Your task to perform on an android device: install app "Google Sheets" Image 0: 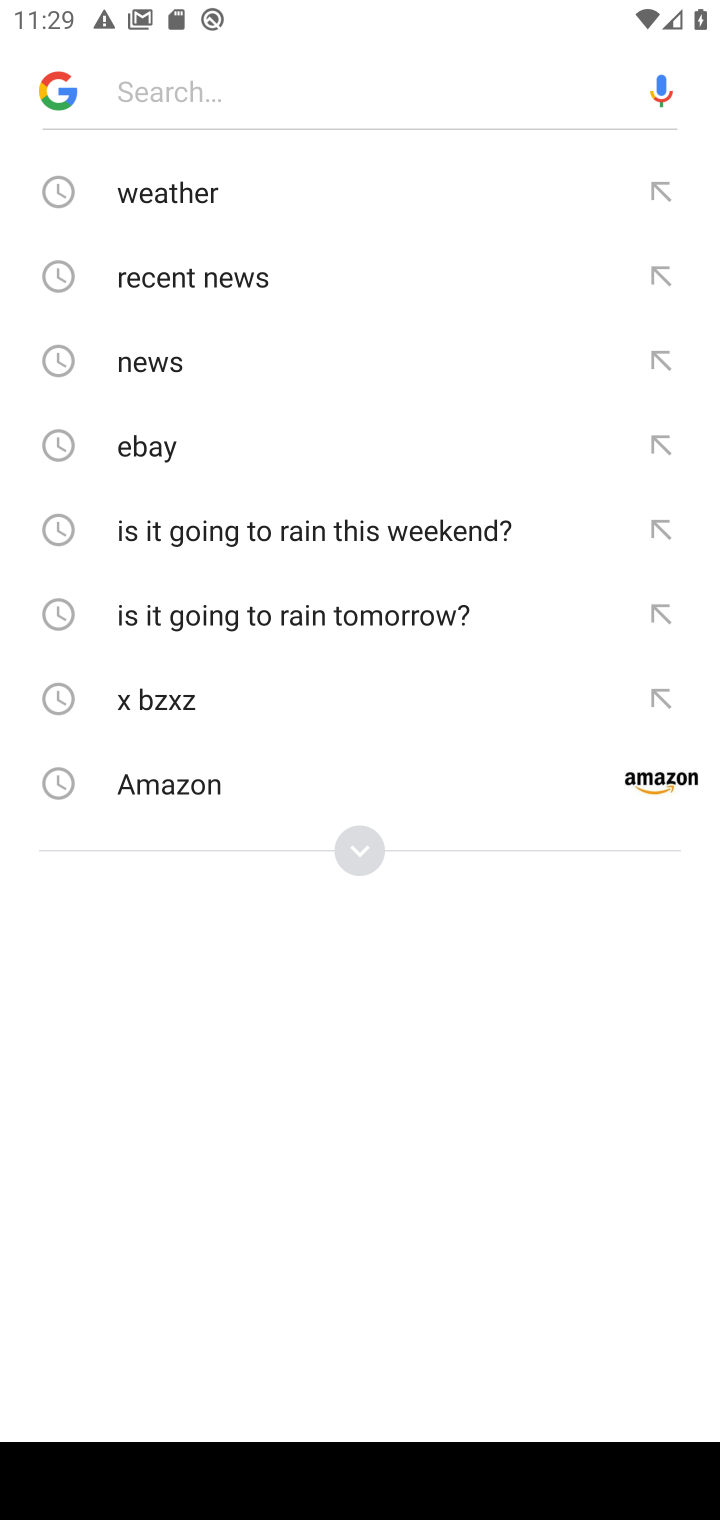
Step 0: press back button
Your task to perform on an android device: install app "Google Sheets" Image 1: 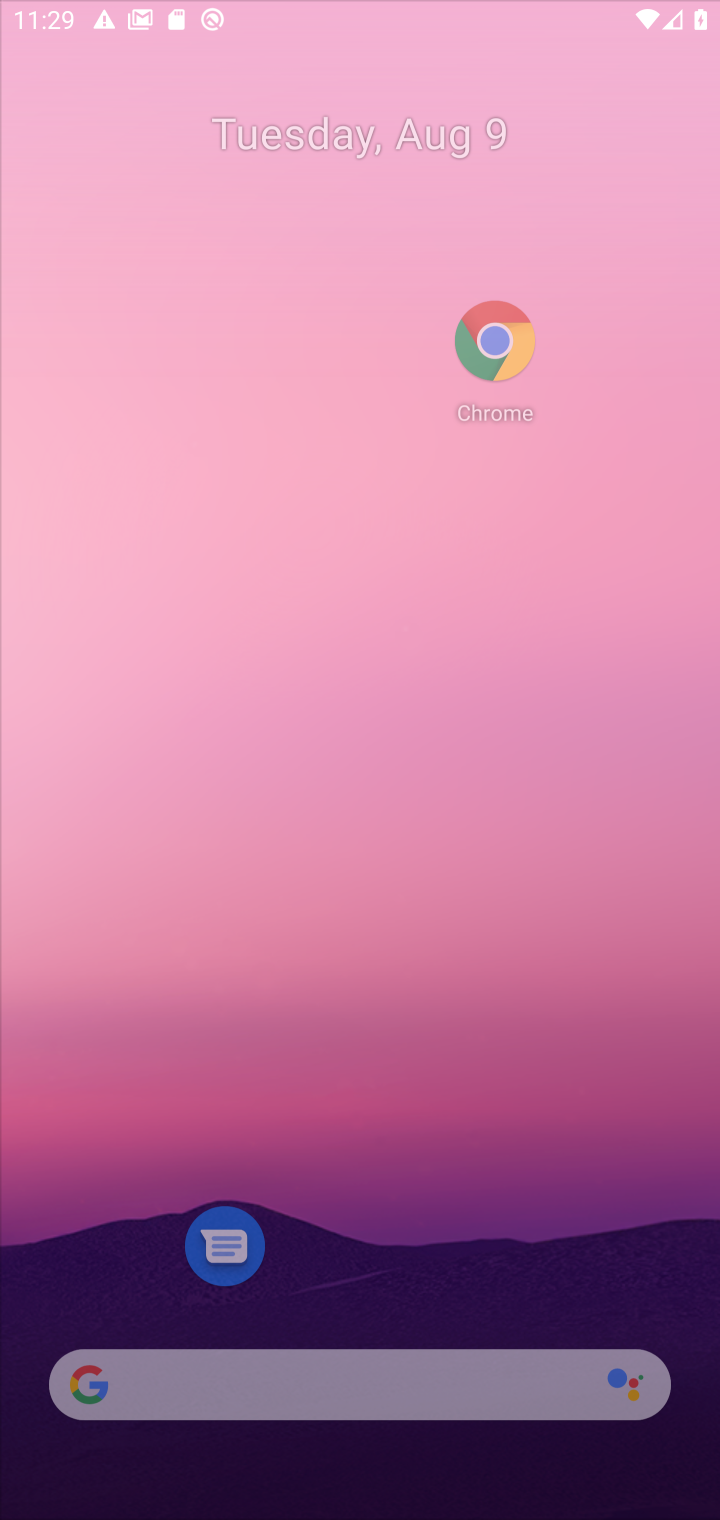
Step 1: press back button
Your task to perform on an android device: install app "Google Sheets" Image 2: 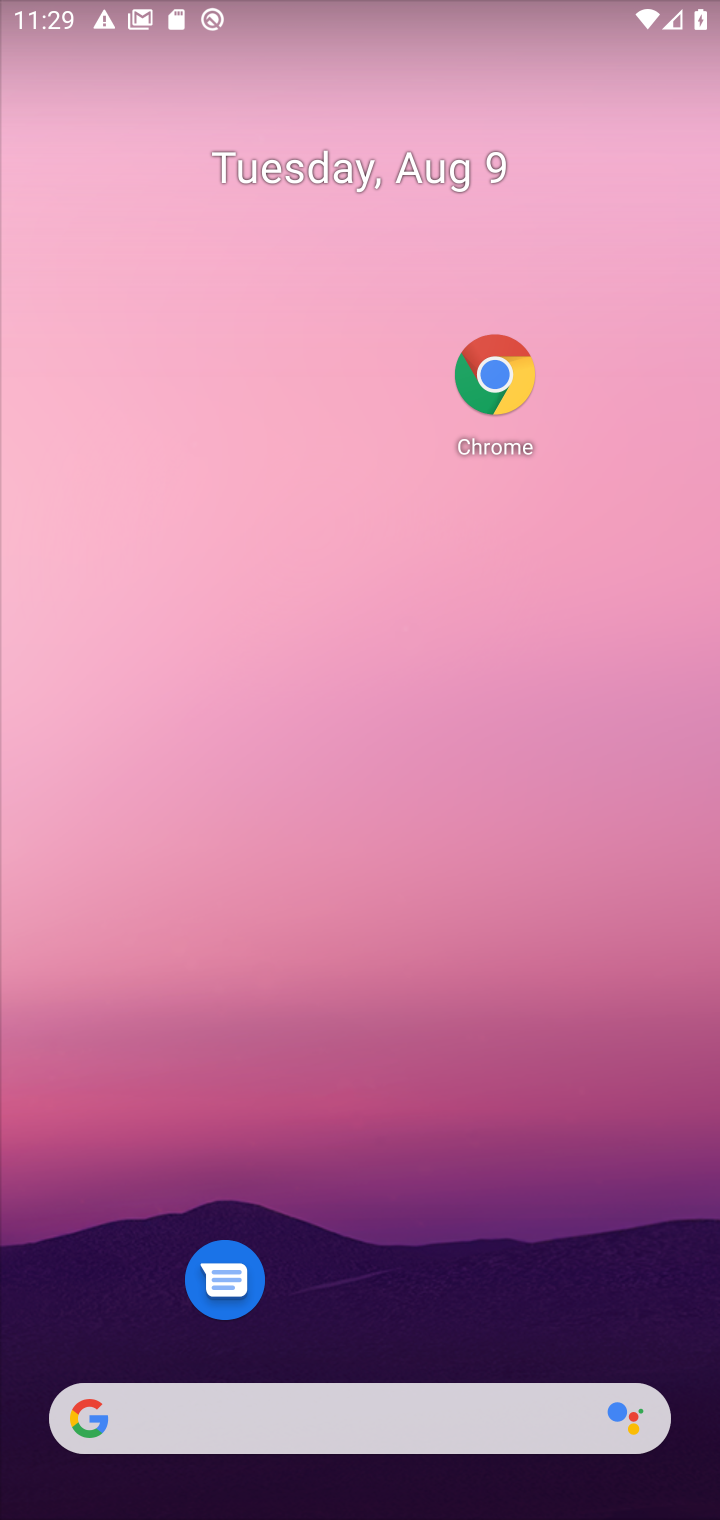
Step 2: drag from (384, 1367) to (573, 1516)
Your task to perform on an android device: install app "Google Sheets" Image 3: 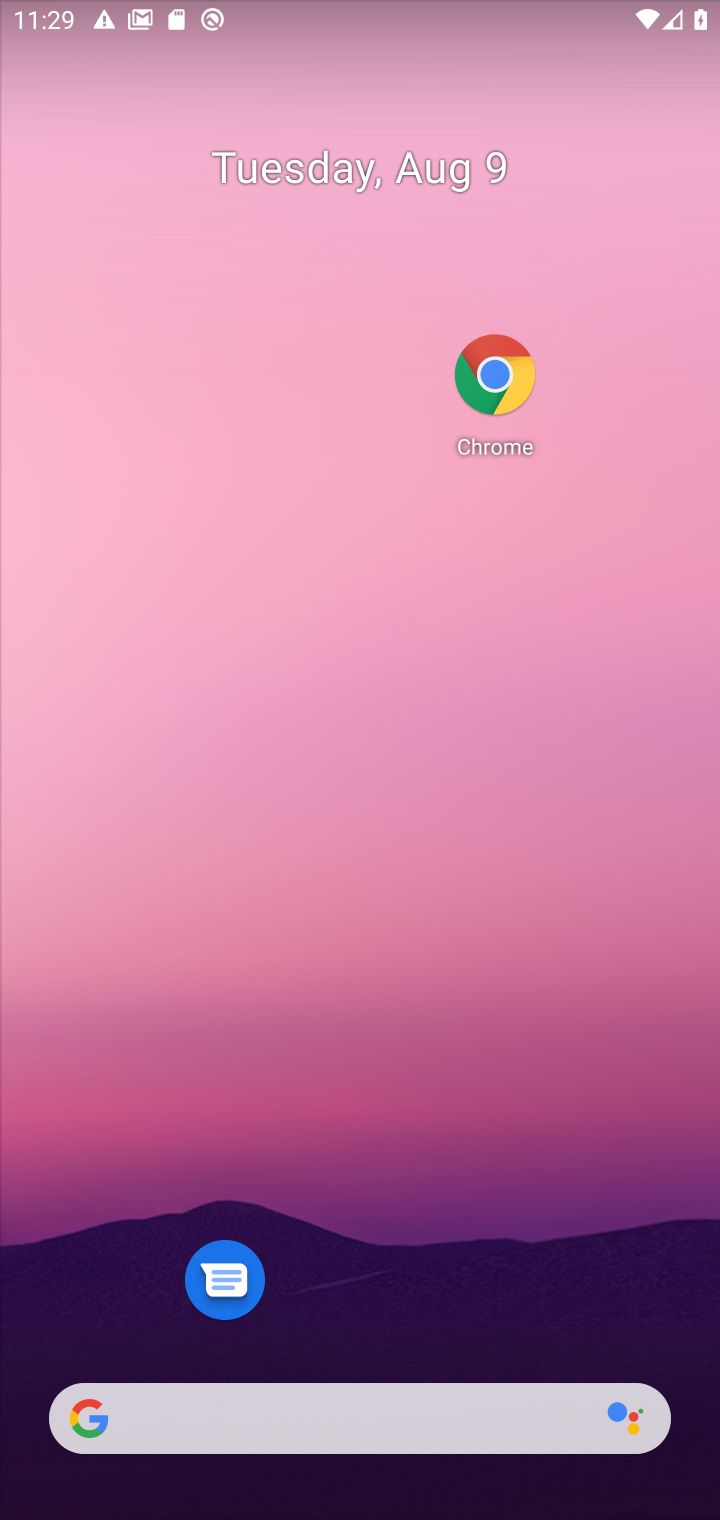
Step 3: click (654, 257)
Your task to perform on an android device: install app "Google Sheets" Image 4: 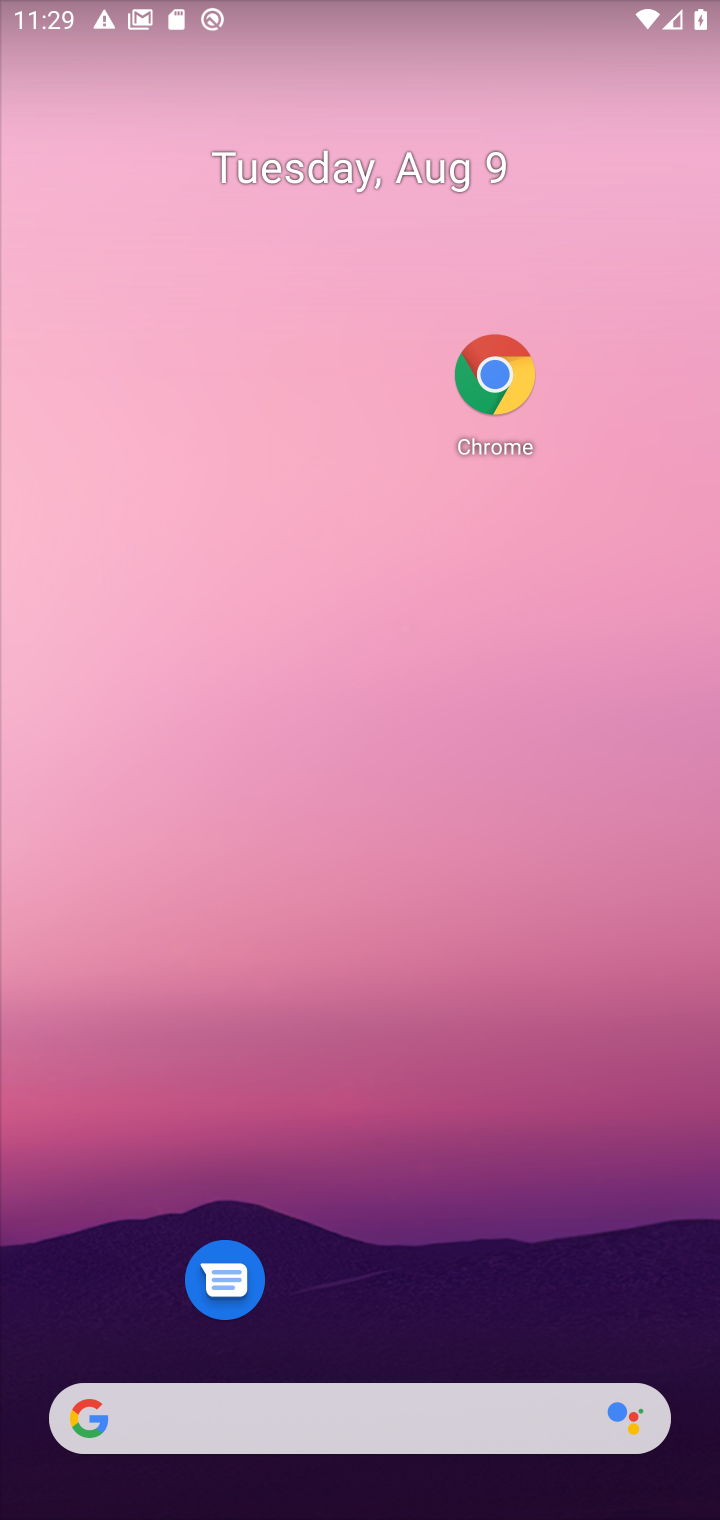
Step 4: drag from (517, 1326) to (644, 12)
Your task to perform on an android device: install app "Google Sheets" Image 5: 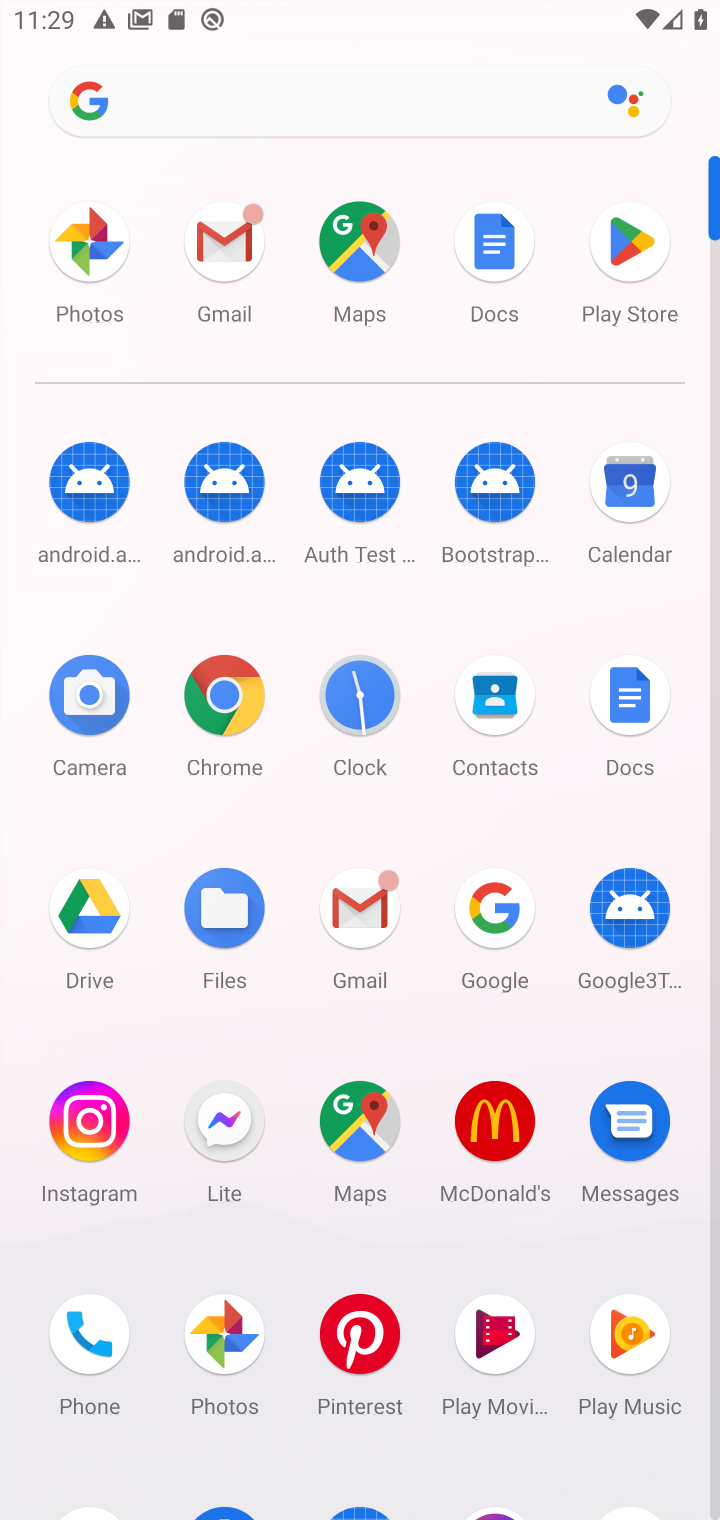
Step 5: click (645, 262)
Your task to perform on an android device: install app "Google Sheets" Image 6: 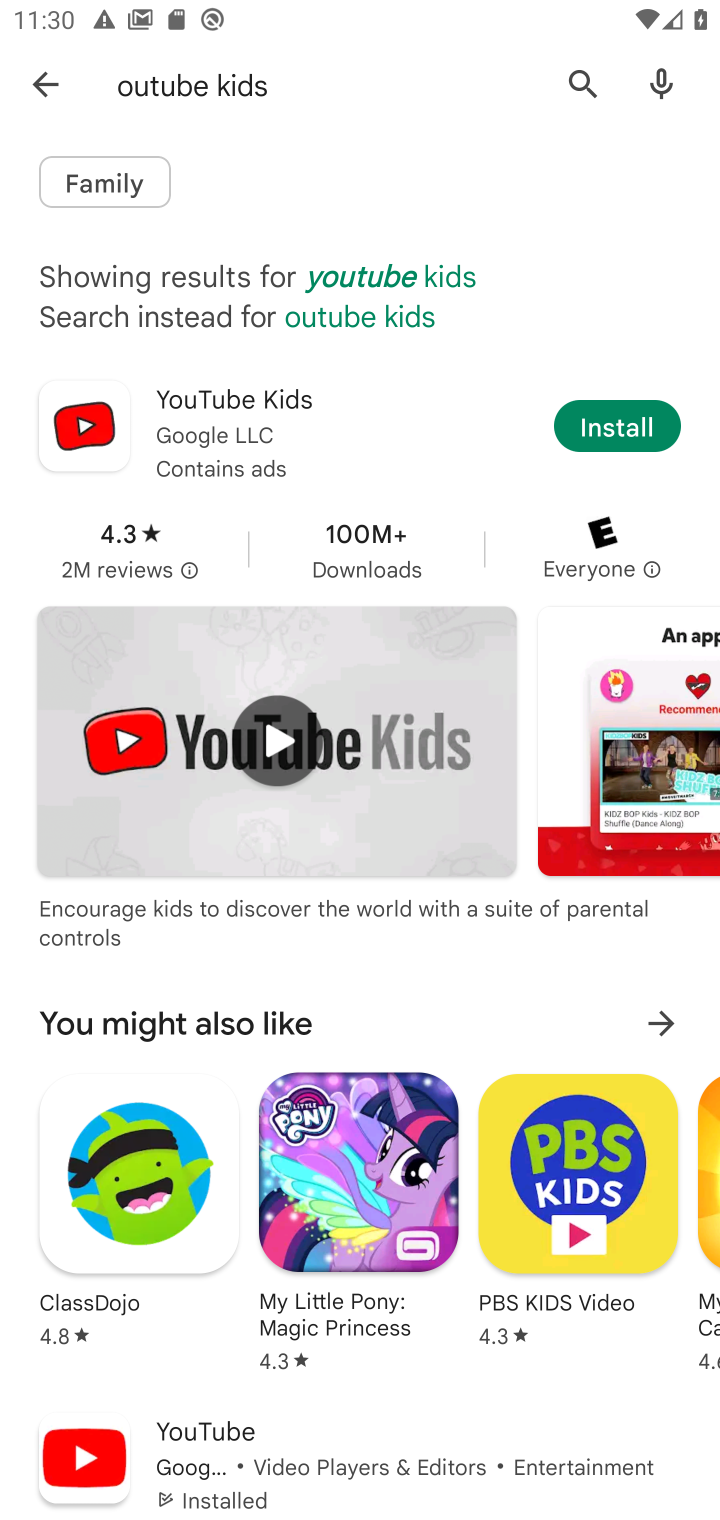
Step 6: click (33, 92)
Your task to perform on an android device: install app "Google Sheets" Image 7: 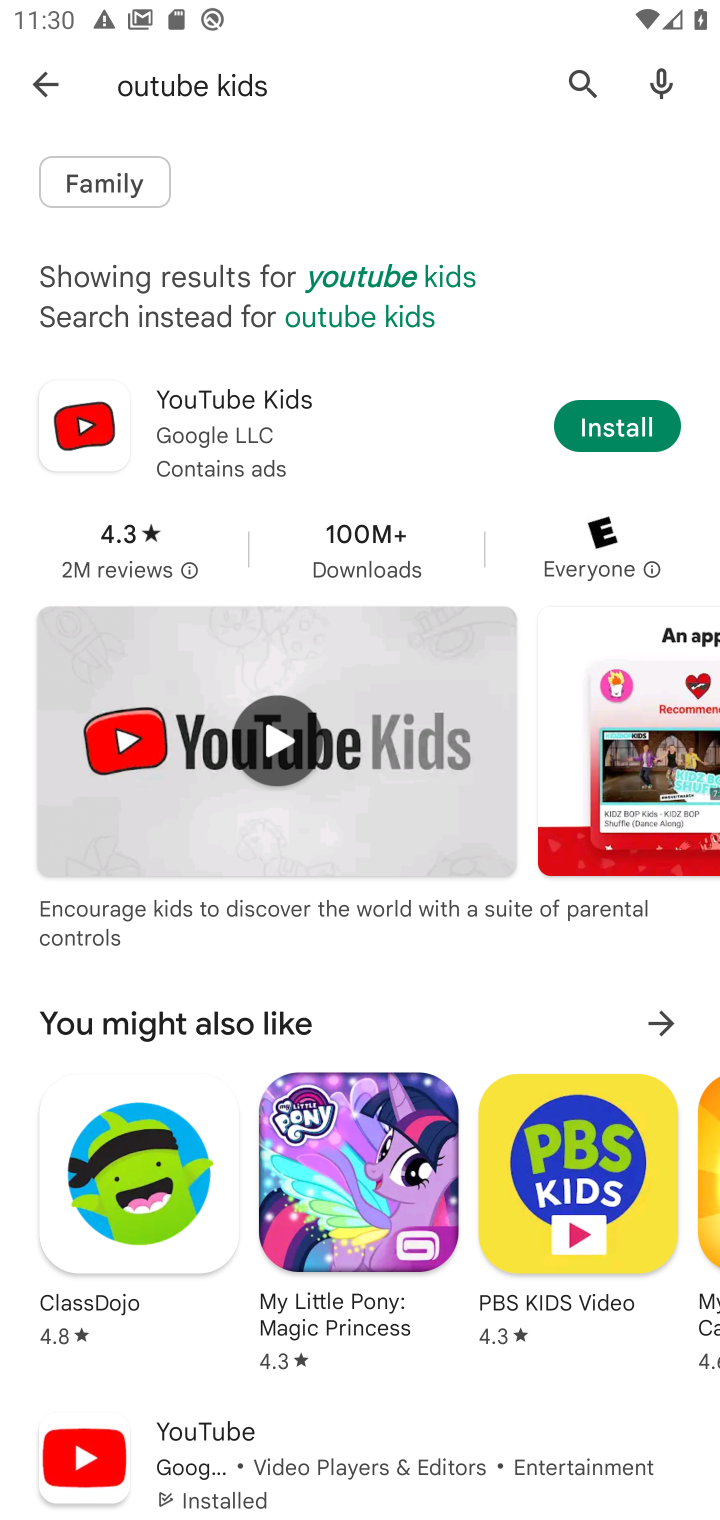
Step 7: click (567, 85)
Your task to perform on an android device: install app "Google Sheets" Image 8: 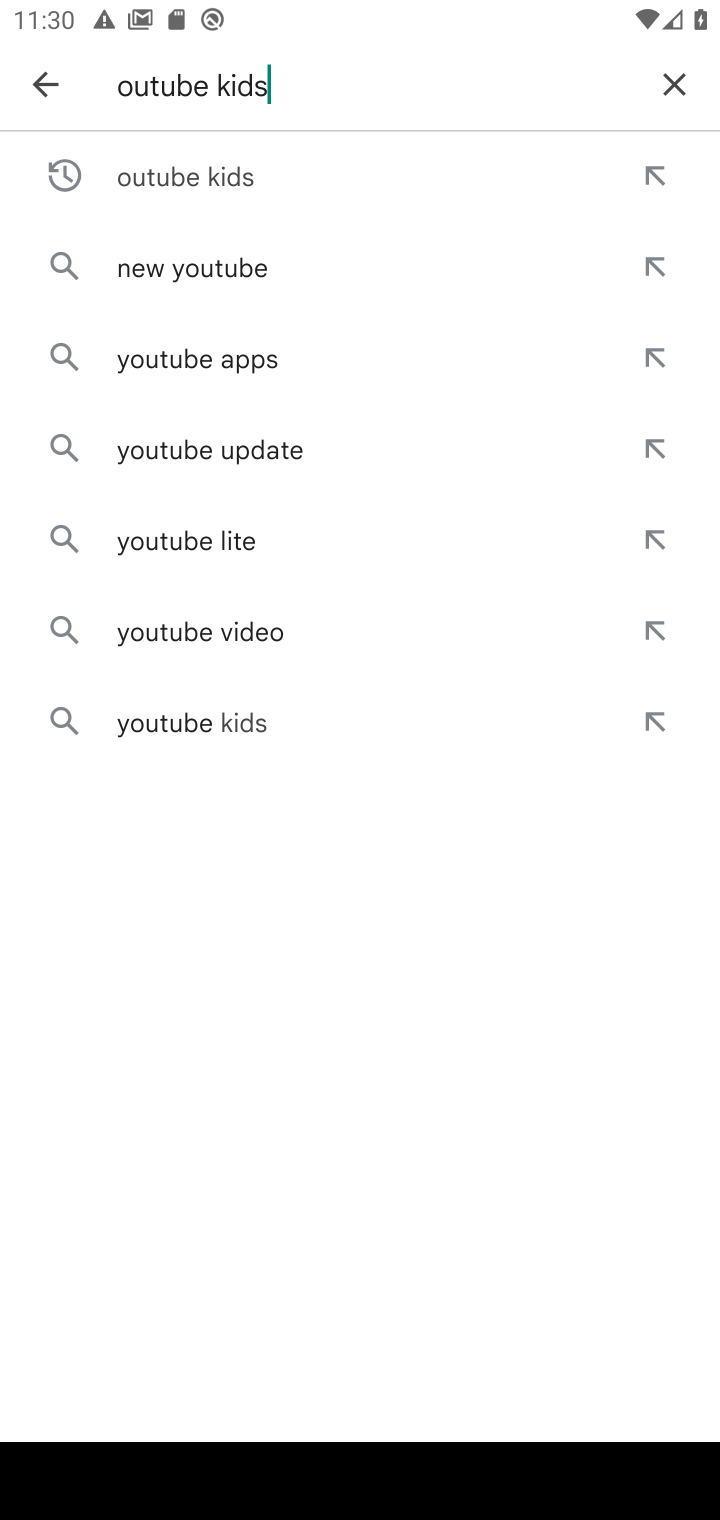
Step 8: click (673, 64)
Your task to perform on an android device: install app "Google Sheets" Image 9: 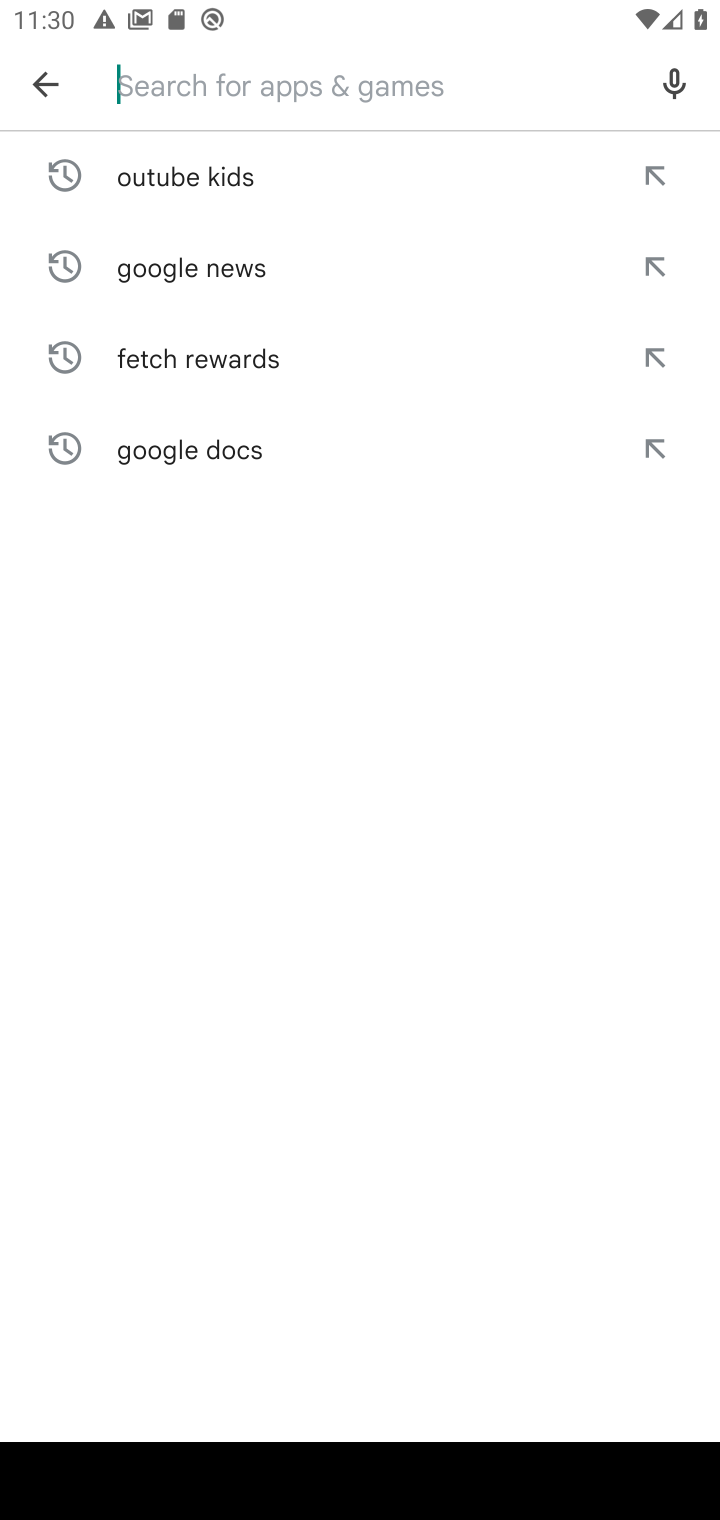
Step 9: type "Google Sheets"
Your task to perform on an android device: install app "Google Sheets" Image 10: 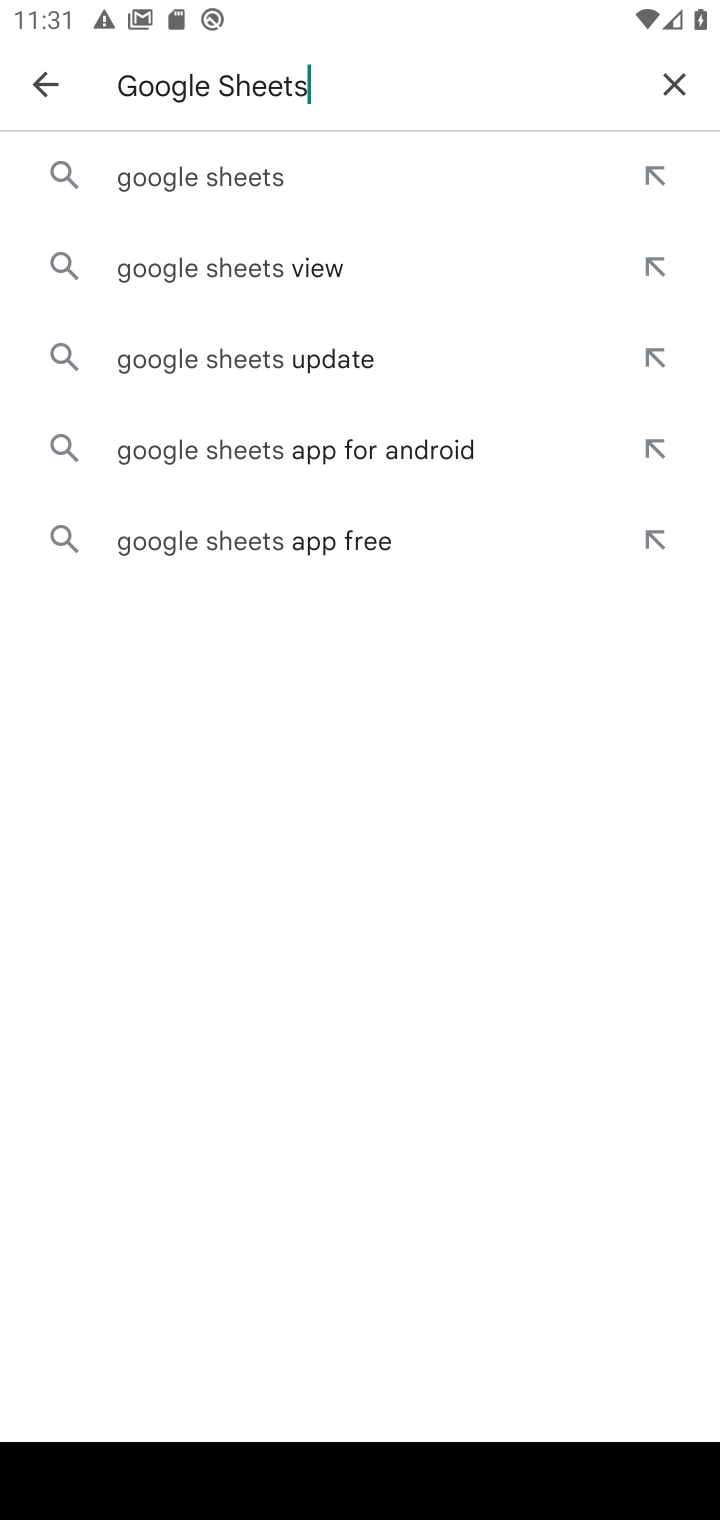
Step 10: click (236, 164)
Your task to perform on an android device: install app "Google Sheets" Image 11: 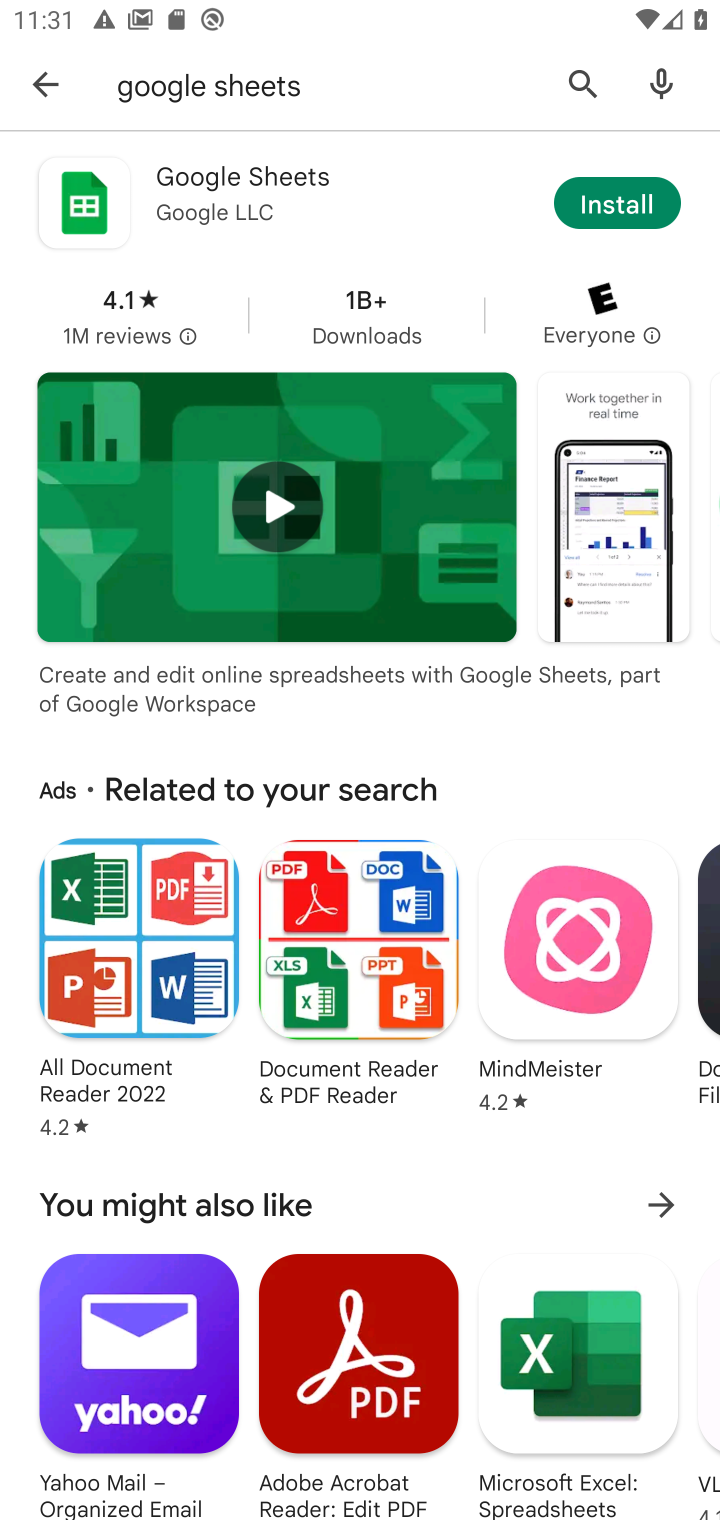
Step 11: click (620, 195)
Your task to perform on an android device: install app "Google Sheets" Image 12: 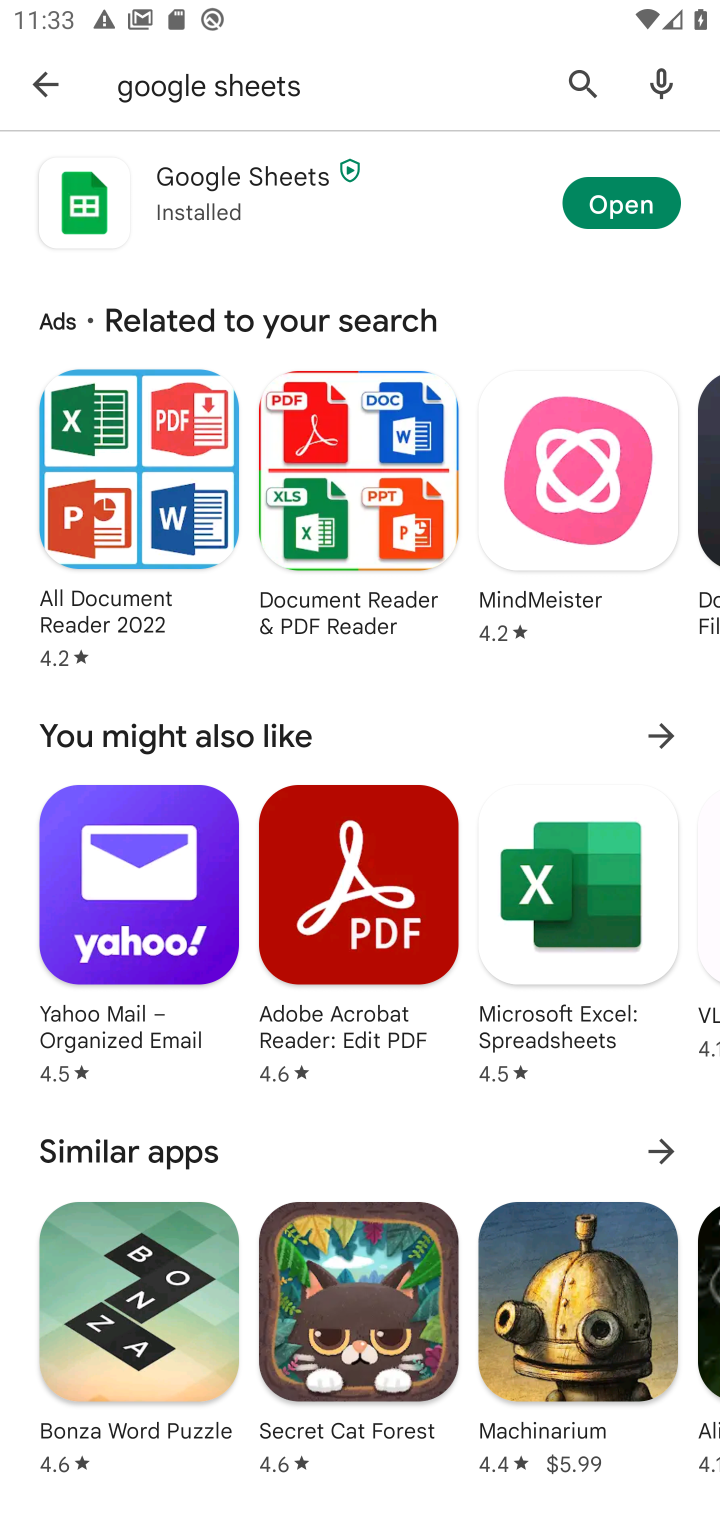
Step 12: click (593, 199)
Your task to perform on an android device: install app "Google Sheets" Image 13: 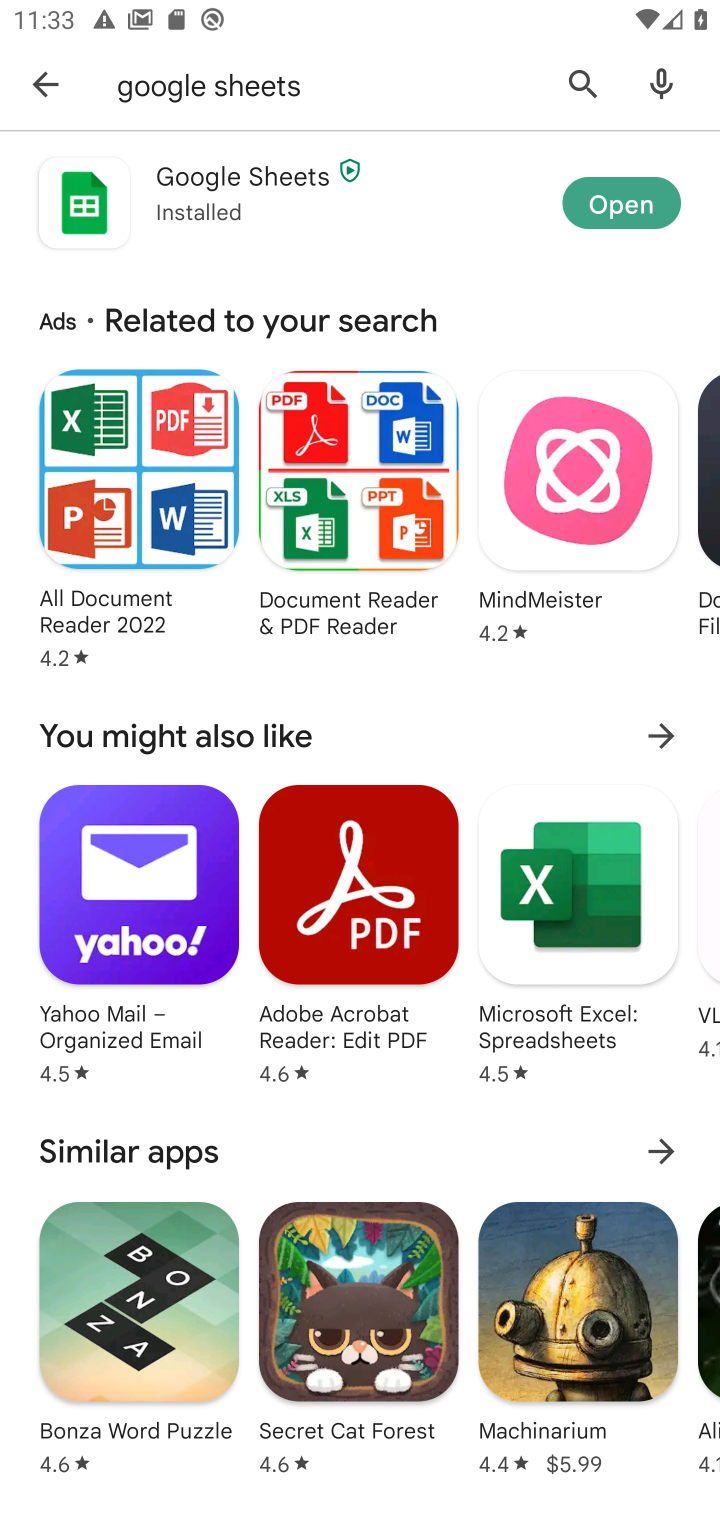
Step 13: task complete